Your task to perform on an android device: What is the recent news? Image 0: 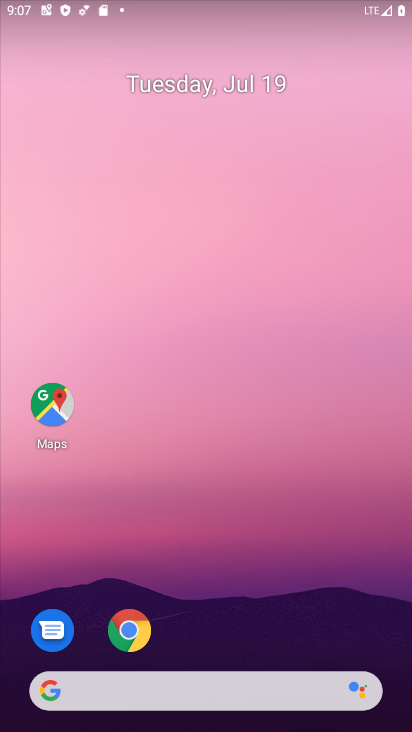
Step 0: drag from (199, 464) to (219, 105)
Your task to perform on an android device: What is the recent news? Image 1: 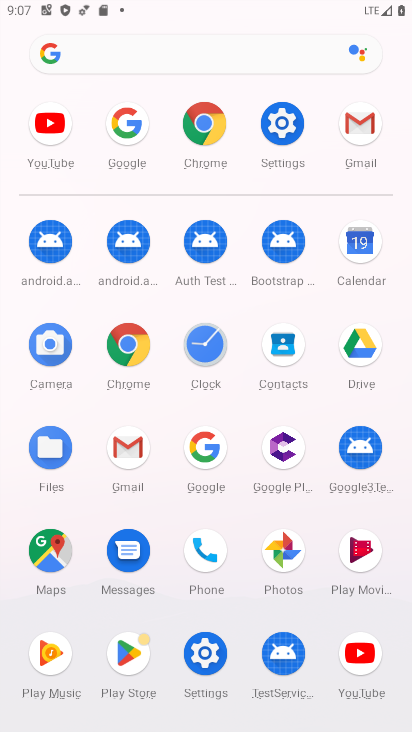
Step 1: click (123, 125)
Your task to perform on an android device: What is the recent news? Image 2: 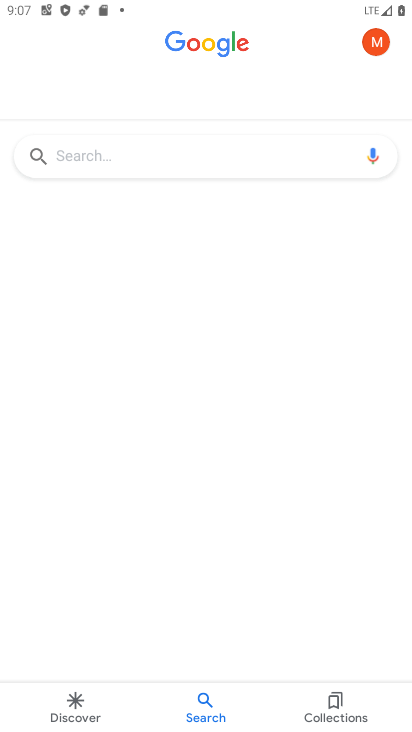
Step 2: click (138, 153)
Your task to perform on an android device: What is the recent news? Image 3: 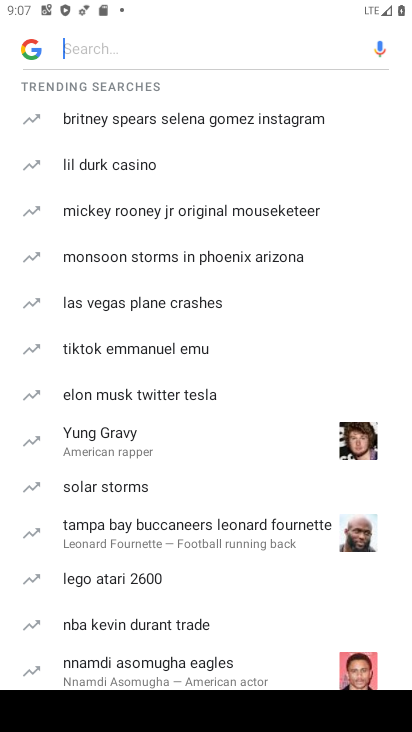
Step 3: type "recent news"
Your task to perform on an android device: What is the recent news? Image 4: 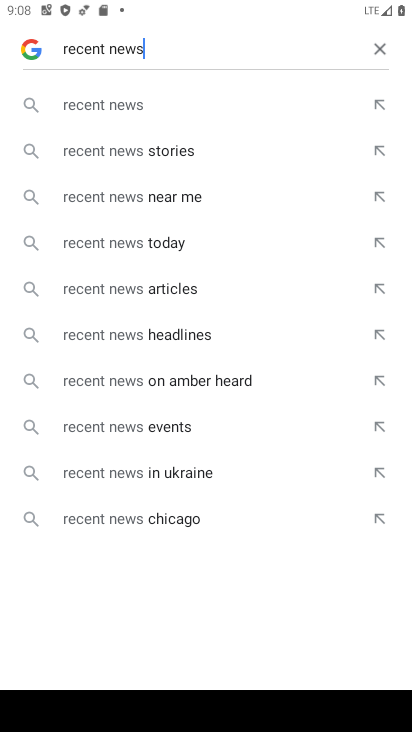
Step 4: click (110, 112)
Your task to perform on an android device: What is the recent news? Image 5: 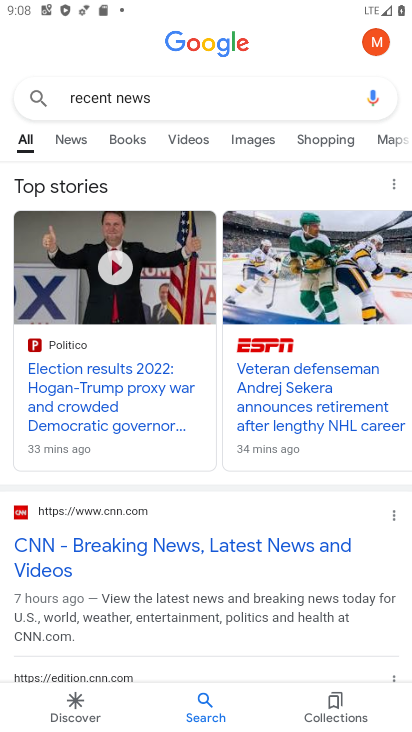
Step 5: task complete